Your task to perform on an android device: Open calendar and show me the third week of next month Image 0: 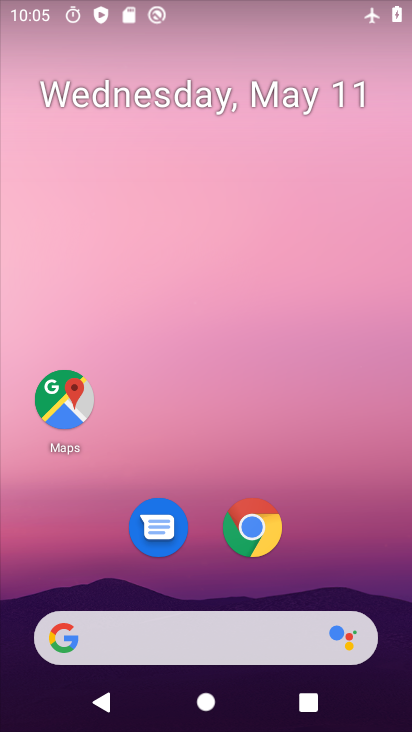
Step 0: drag from (276, 565) to (309, 315)
Your task to perform on an android device: Open calendar and show me the third week of next month Image 1: 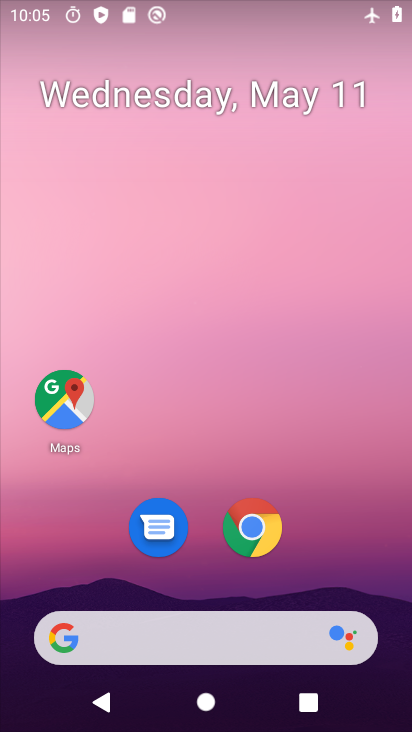
Step 1: drag from (220, 665) to (259, 298)
Your task to perform on an android device: Open calendar and show me the third week of next month Image 2: 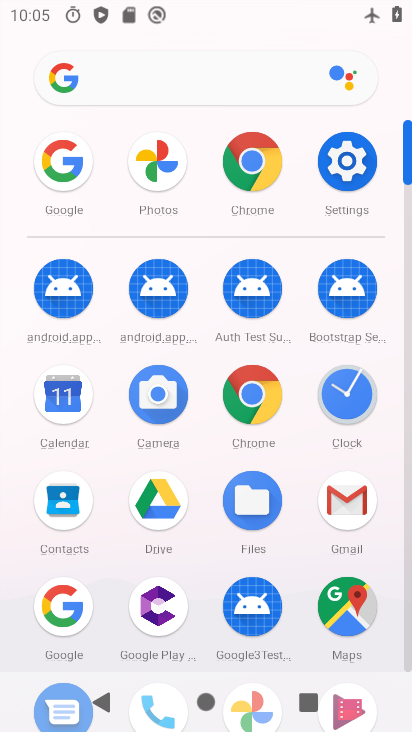
Step 2: click (69, 399)
Your task to perform on an android device: Open calendar and show me the third week of next month Image 3: 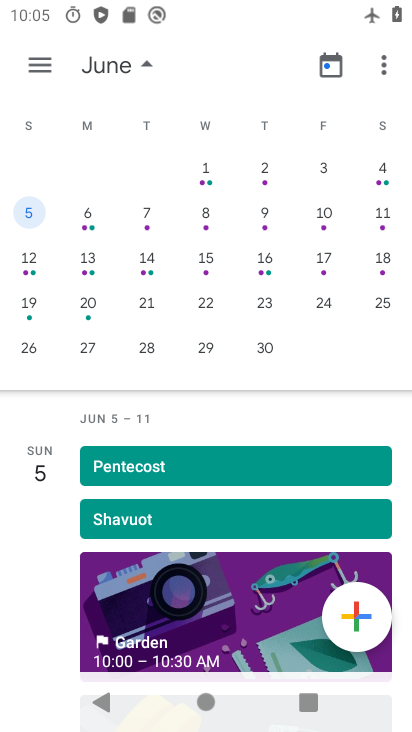
Step 3: click (22, 310)
Your task to perform on an android device: Open calendar and show me the third week of next month Image 4: 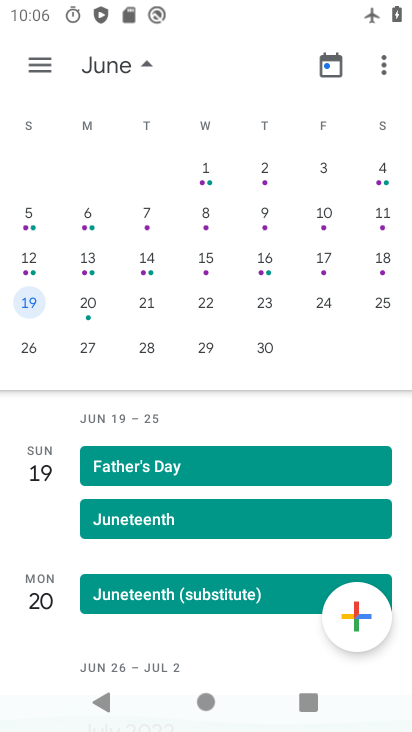
Step 4: task complete